Your task to perform on an android device: Clear the shopping cart on target. Image 0: 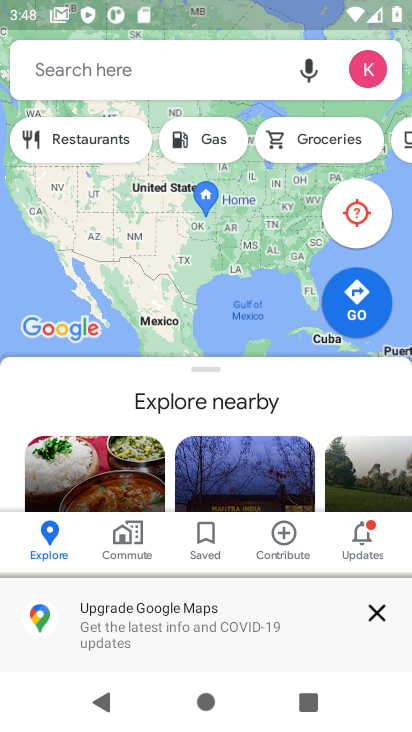
Step 0: press home button
Your task to perform on an android device: Clear the shopping cart on target. Image 1: 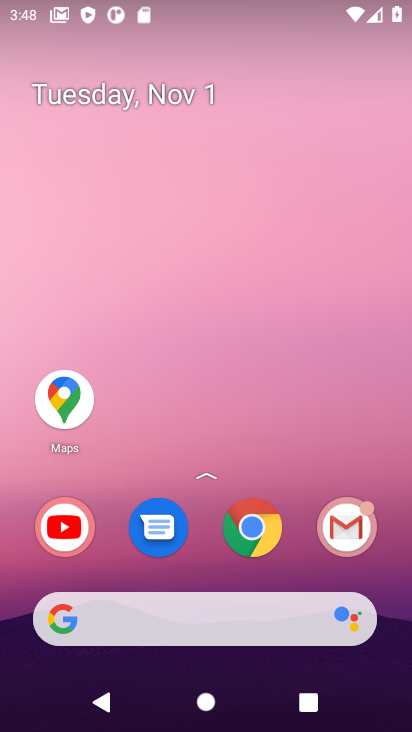
Step 1: click (194, 619)
Your task to perform on an android device: Clear the shopping cart on target. Image 2: 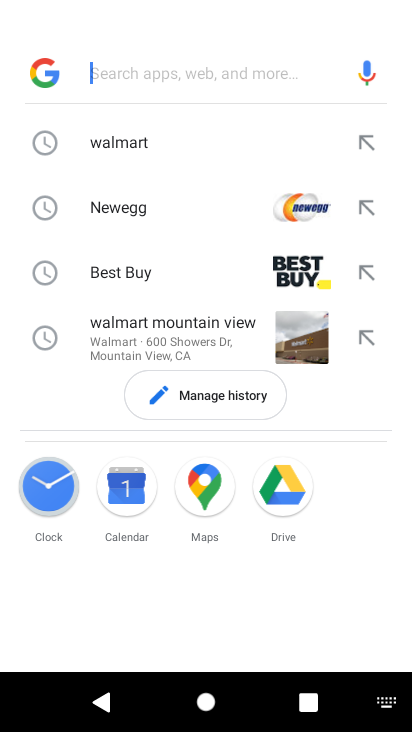
Step 2: type "target.com"
Your task to perform on an android device: Clear the shopping cart on target. Image 3: 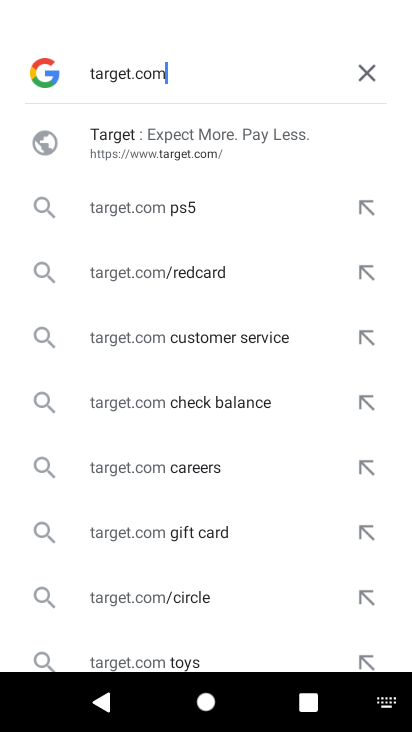
Step 3: click (164, 149)
Your task to perform on an android device: Clear the shopping cart on target. Image 4: 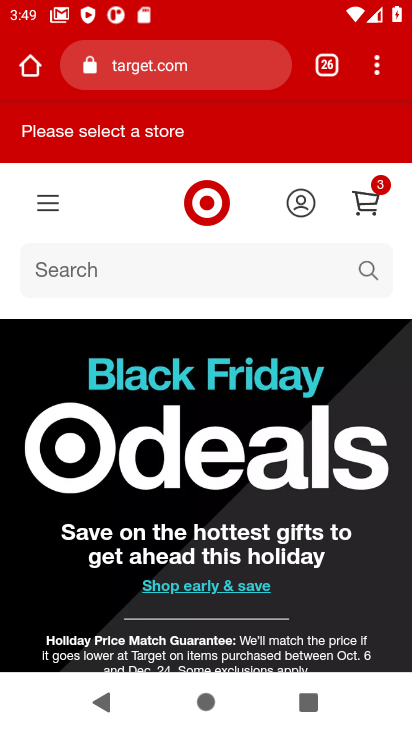
Step 4: click (170, 265)
Your task to perform on an android device: Clear the shopping cart on target. Image 5: 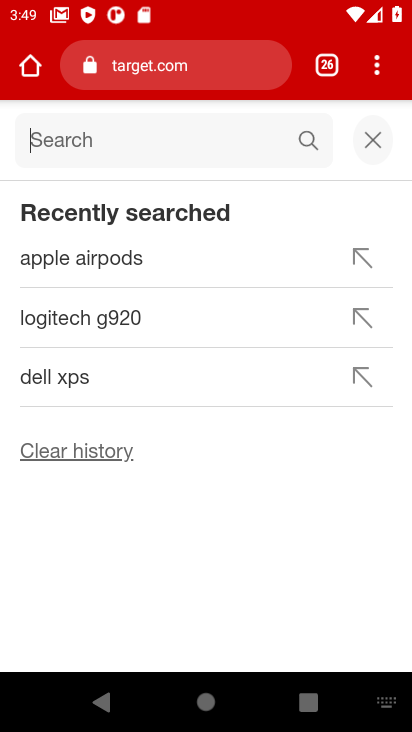
Step 5: press back button
Your task to perform on an android device: Clear the shopping cart on target. Image 6: 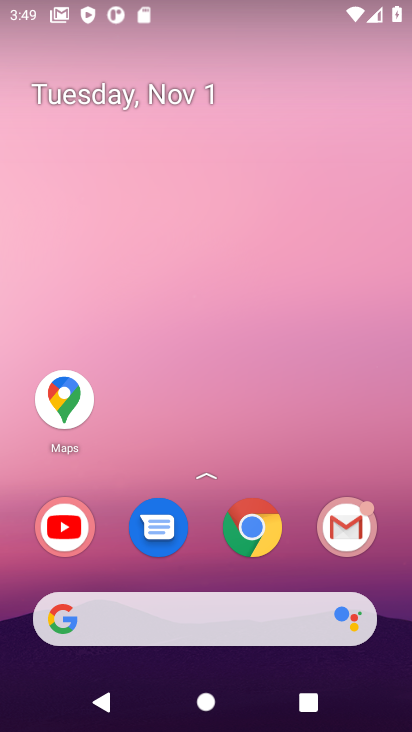
Step 6: click (217, 609)
Your task to perform on an android device: Clear the shopping cart on target. Image 7: 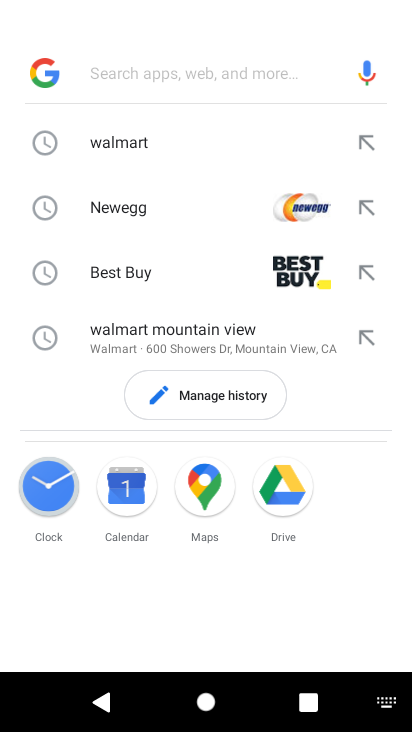
Step 7: type "target.com"
Your task to perform on an android device: Clear the shopping cart on target. Image 8: 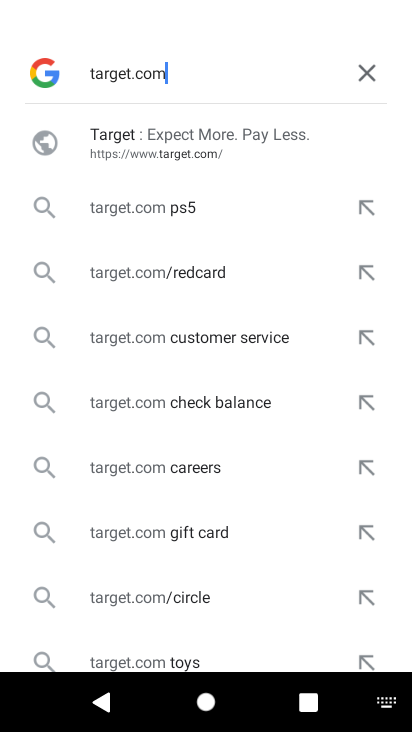
Step 8: click (216, 135)
Your task to perform on an android device: Clear the shopping cart on target. Image 9: 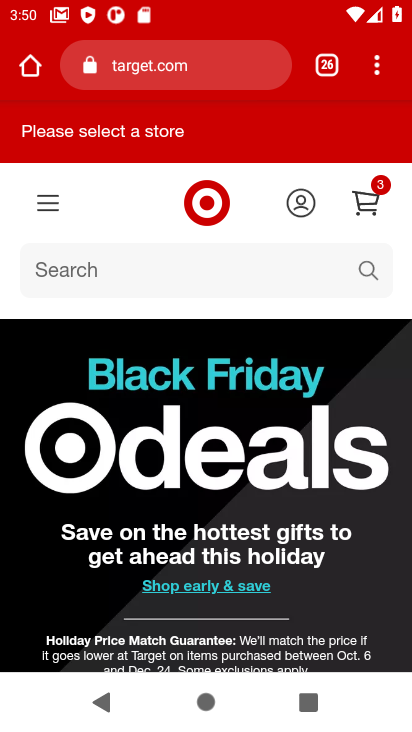
Step 9: click (374, 191)
Your task to perform on an android device: Clear the shopping cart on target. Image 10: 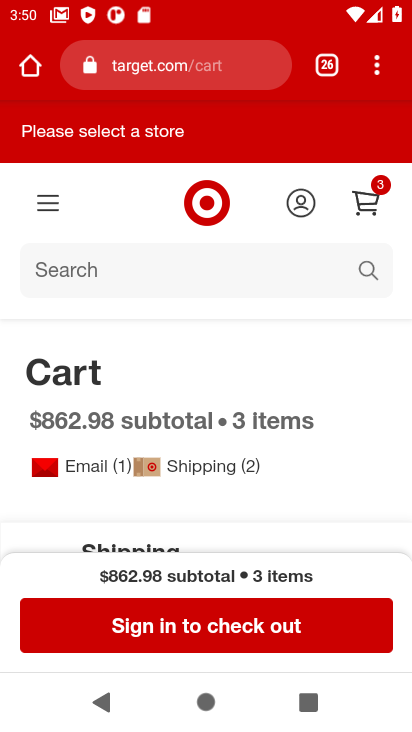
Step 10: drag from (295, 452) to (317, 221)
Your task to perform on an android device: Clear the shopping cart on target. Image 11: 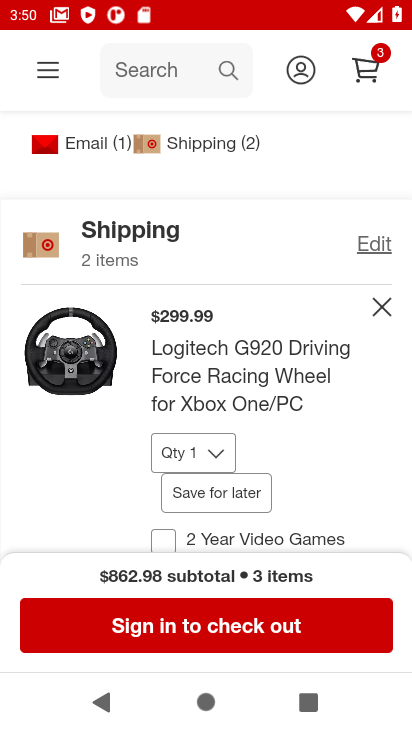
Step 11: click (382, 303)
Your task to perform on an android device: Clear the shopping cart on target. Image 12: 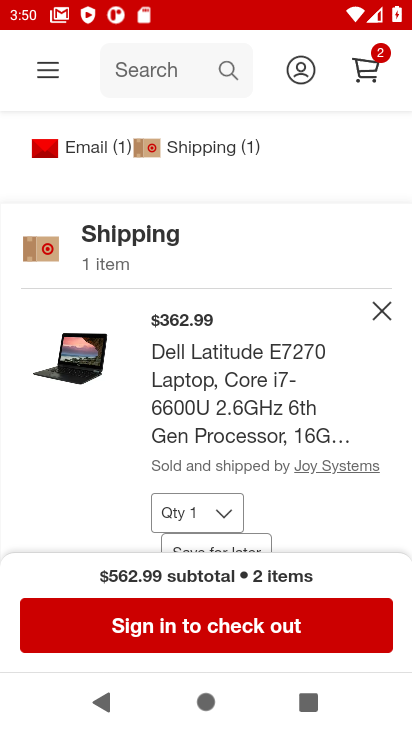
Step 12: click (379, 310)
Your task to perform on an android device: Clear the shopping cart on target. Image 13: 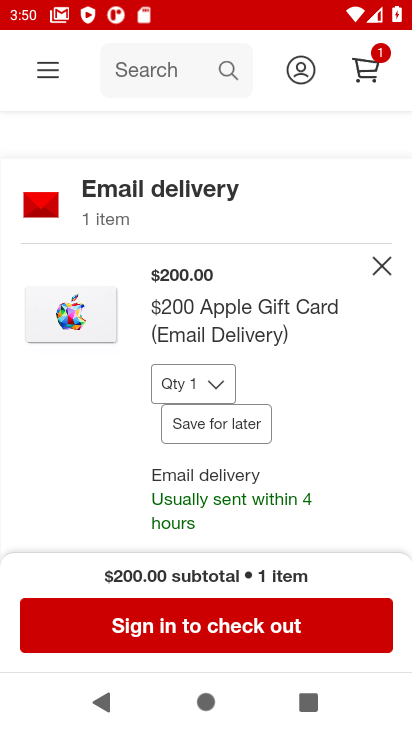
Step 13: click (375, 268)
Your task to perform on an android device: Clear the shopping cart on target. Image 14: 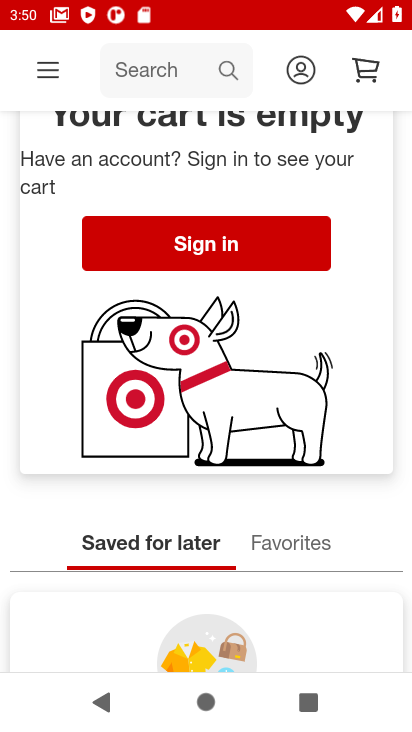
Step 14: task complete